Your task to perform on an android device: empty trash in google photos Image 0: 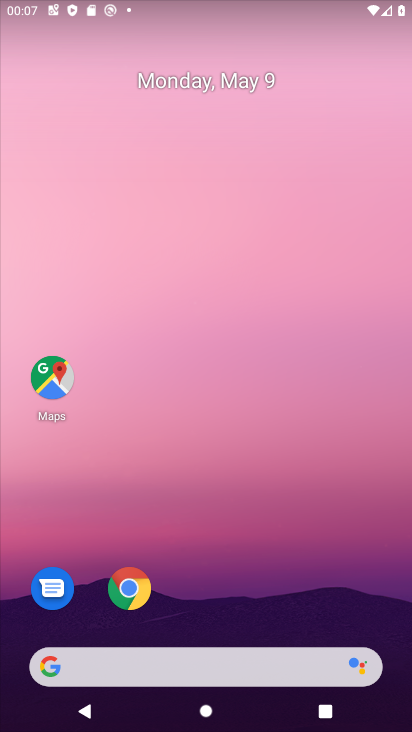
Step 0: drag from (269, 577) to (127, 2)
Your task to perform on an android device: empty trash in google photos Image 1: 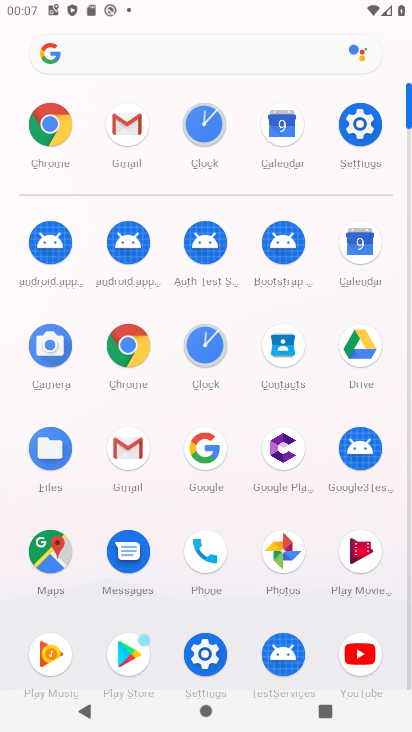
Step 1: click (280, 549)
Your task to perform on an android device: empty trash in google photos Image 2: 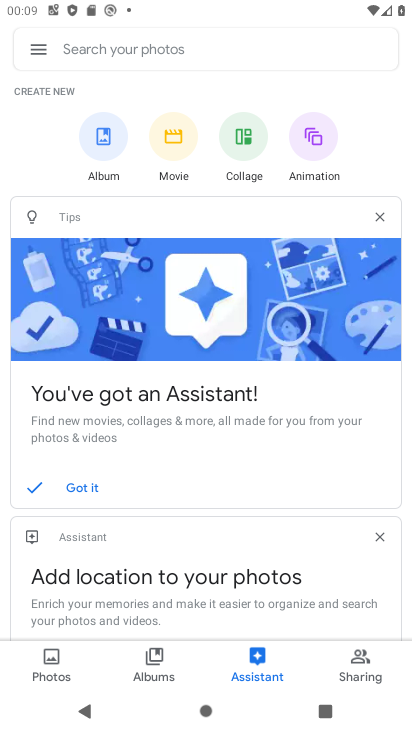
Step 2: click (35, 54)
Your task to perform on an android device: empty trash in google photos Image 3: 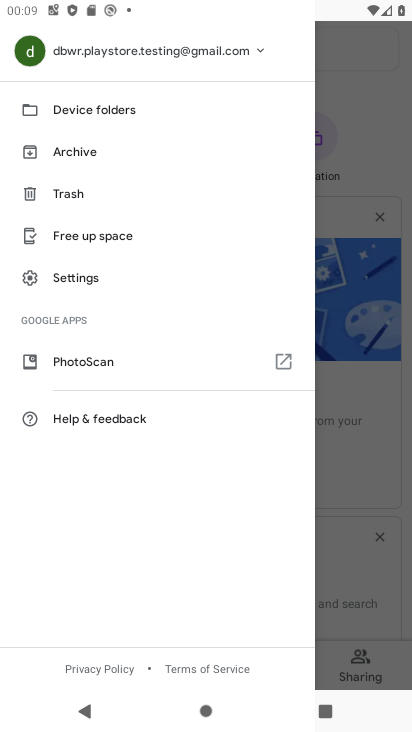
Step 3: click (64, 197)
Your task to perform on an android device: empty trash in google photos Image 4: 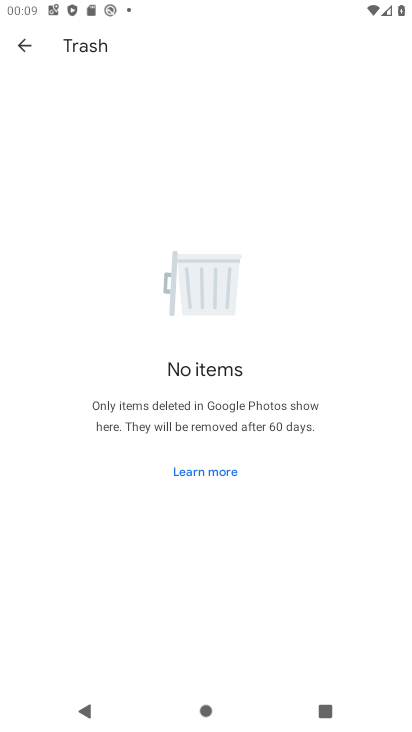
Step 4: task complete